Your task to perform on an android device: check storage Image 0: 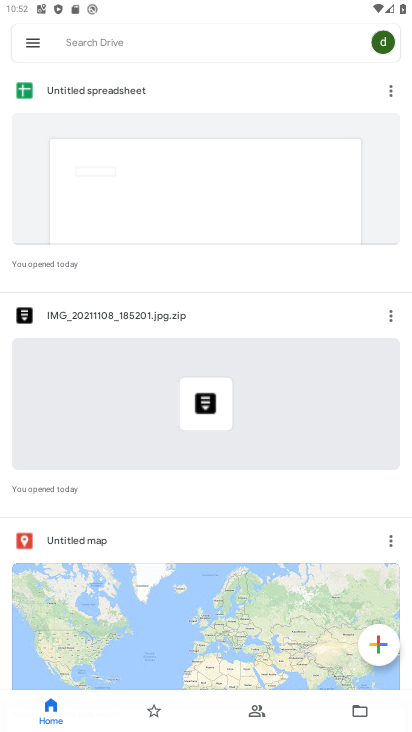
Step 0: press home button
Your task to perform on an android device: check storage Image 1: 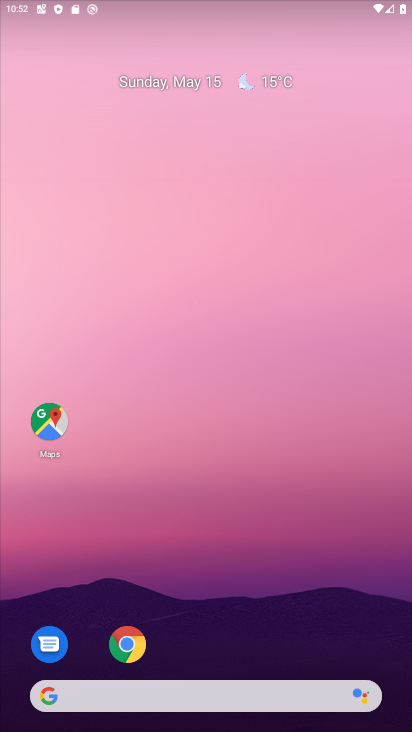
Step 1: drag from (330, 577) to (271, 14)
Your task to perform on an android device: check storage Image 2: 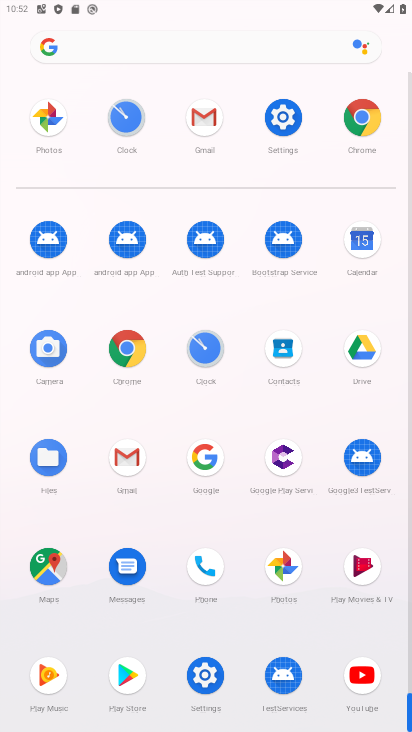
Step 2: click (282, 126)
Your task to perform on an android device: check storage Image 3: 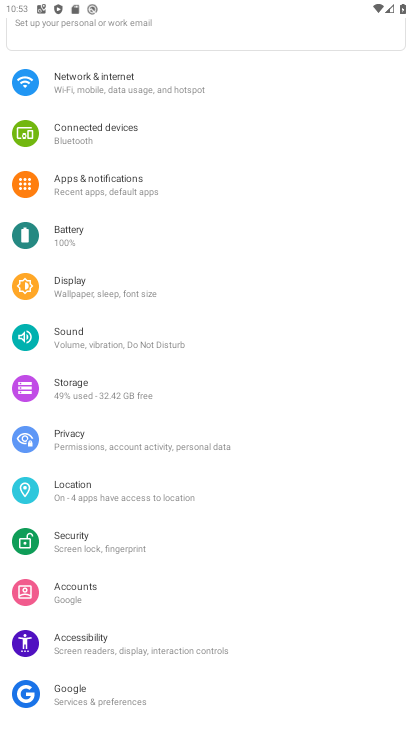
Step 3: click (99, 374)
Your task to perform on an android device: check storage Image 4: 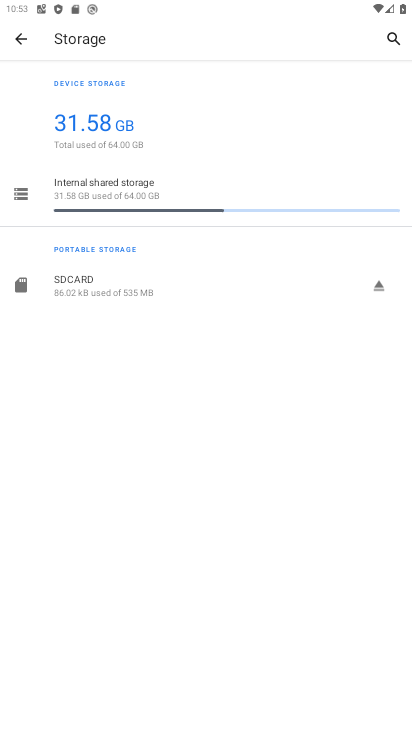
Step 4: task complete